Your task to perform on an android device: toggle wifi Image 0: 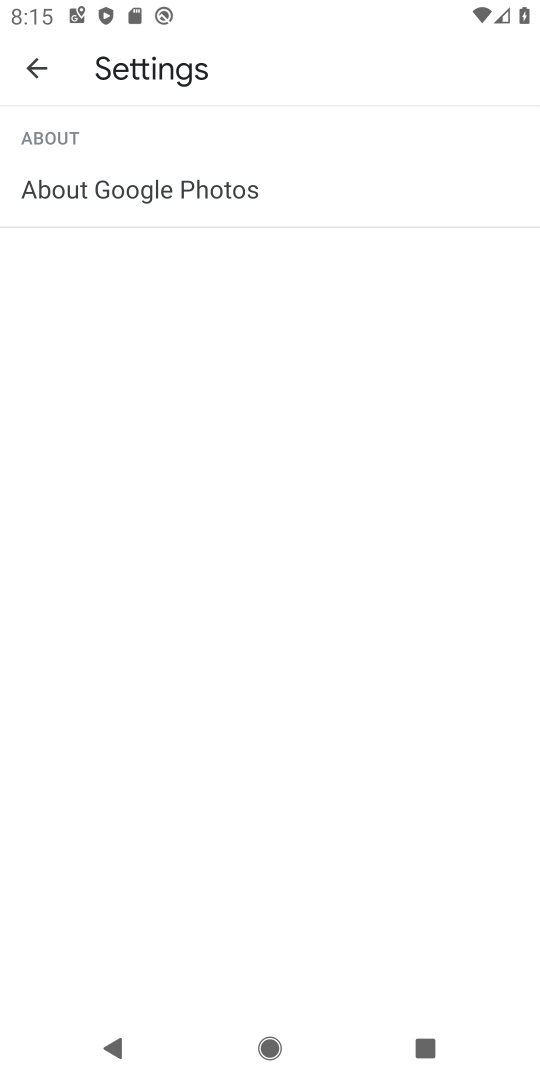
Step 0: press home button
Your task to perform on an android device: toggle wifi Image 1: 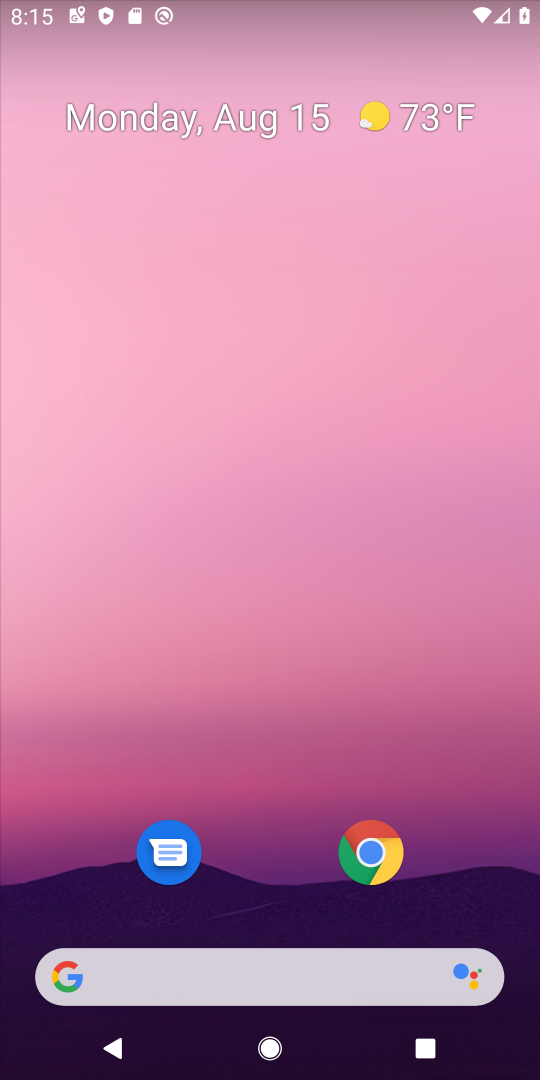
Step 1: drag from (216, 971) to (199, 41)
Your task to perform on an android device: toggle wifi Image 2: 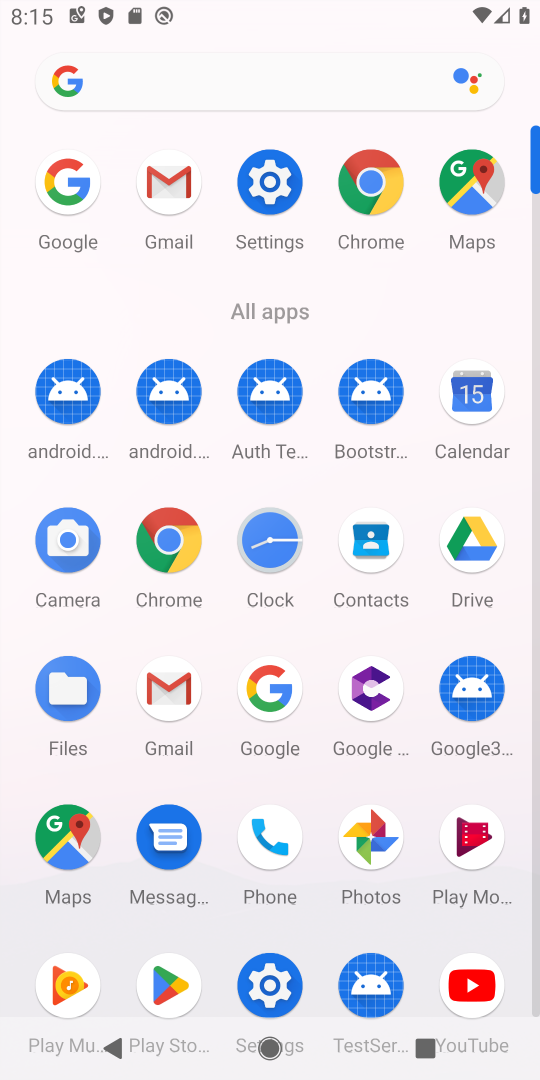
Step 2: click (269, 182)
Your task to perform on an android device: toggle wifi Image 3: 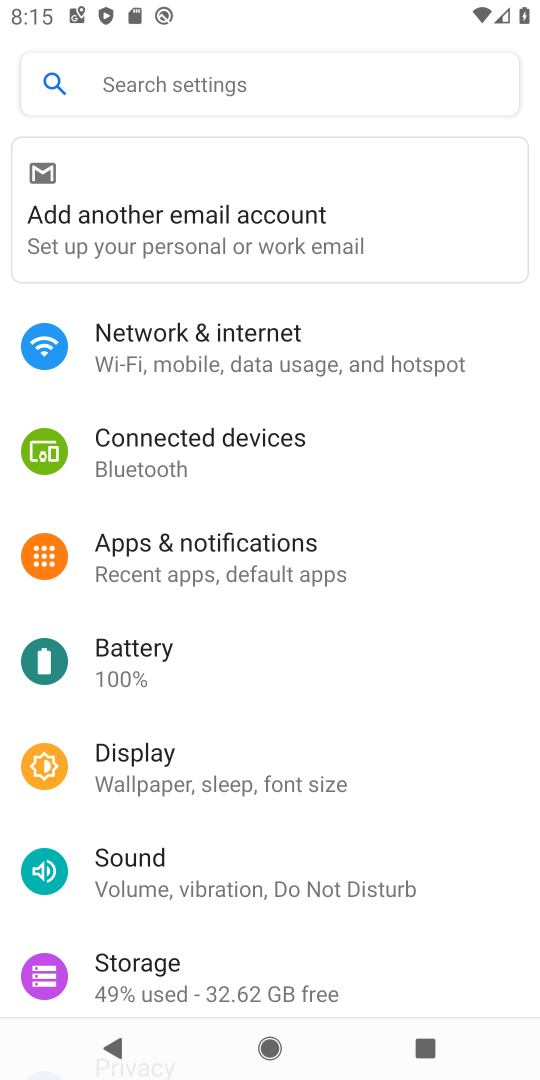
Step 3: click (208, 338)
Your task to perform on an android device: toggle wifi Image 4: 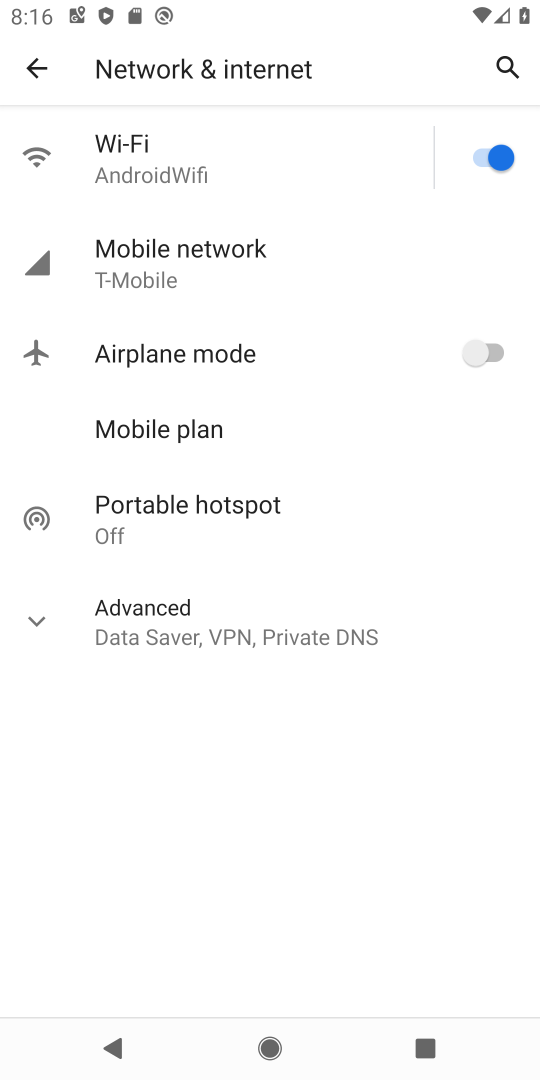
Step 4: click (487, 165)
Your task to perform on an android device: toggle wifi Image 5: 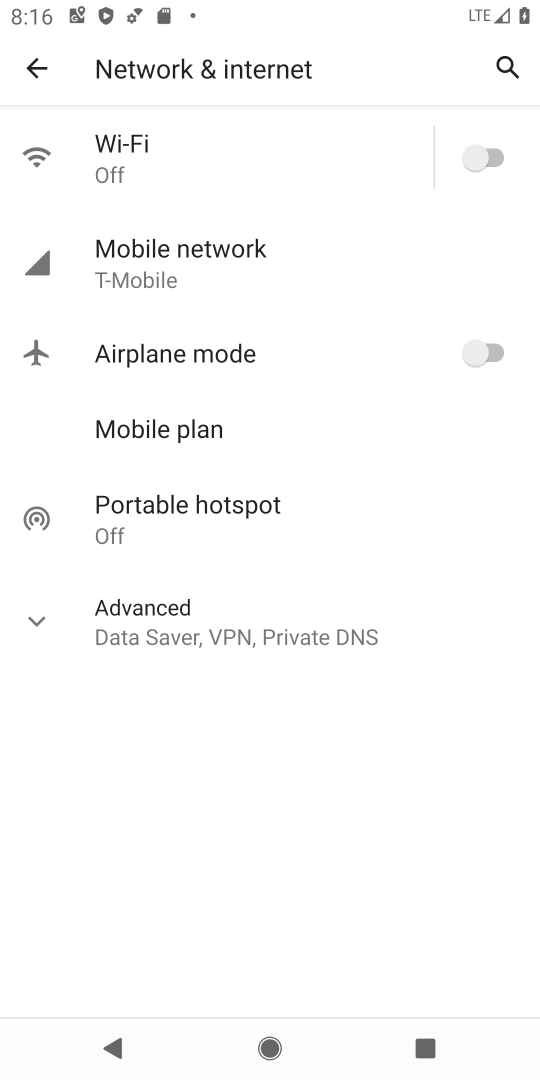
Step 5: task complete